Your task to perform on an android device: turn pop-ups on in chrome Image 0: 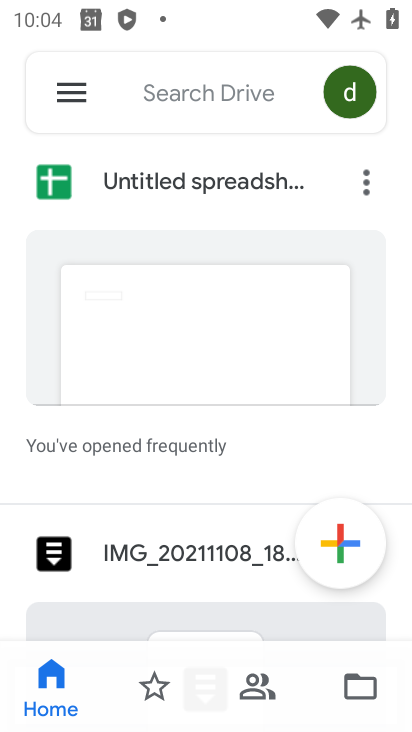
Step 0: press home button
Your task to perform on an android device: turn pop-ups on in chrome Image 1: 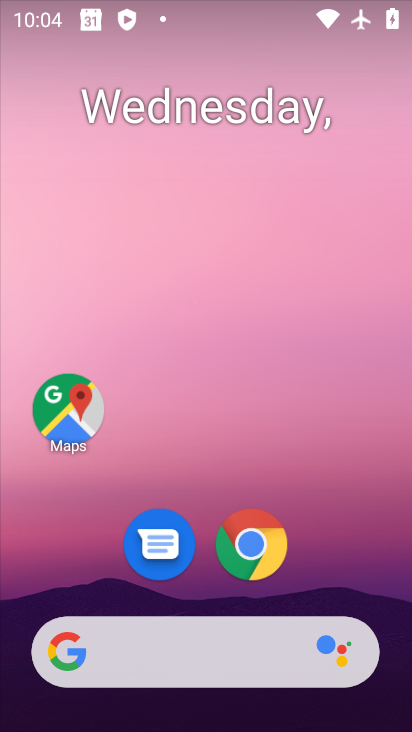
Step 1: click (257, 547)
Your task to perform on an android device: turn pop-ups on in chrome Image 2: 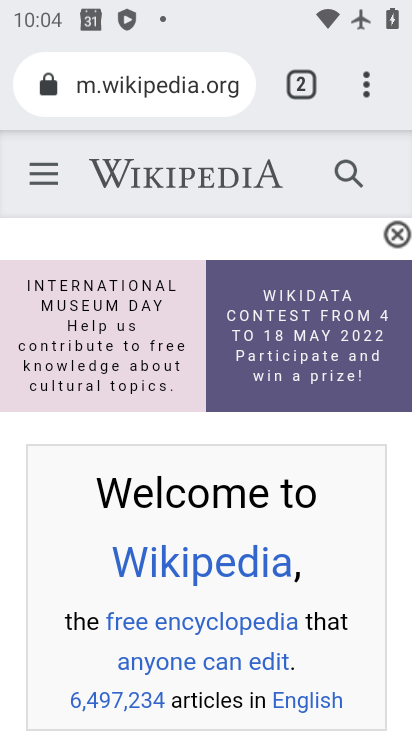
Step 2: click (367, 91)
Your task to perform on an android device: turn pop-ups on in chrome Image 3: 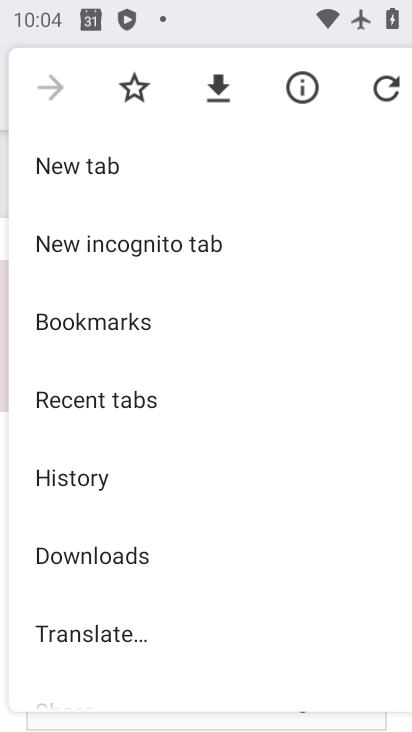
Step 3: drag from (208, 650) to (194, 152)
Your task to perform on an android device: turn pop-ups on in chrome Image 4: 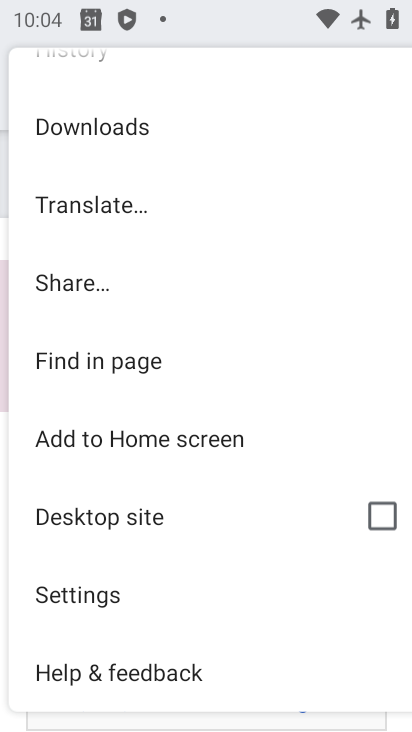
Step 4: click (92, 606)
Your task to perform on an android device: turn pop-ups on in chrome Image 5: 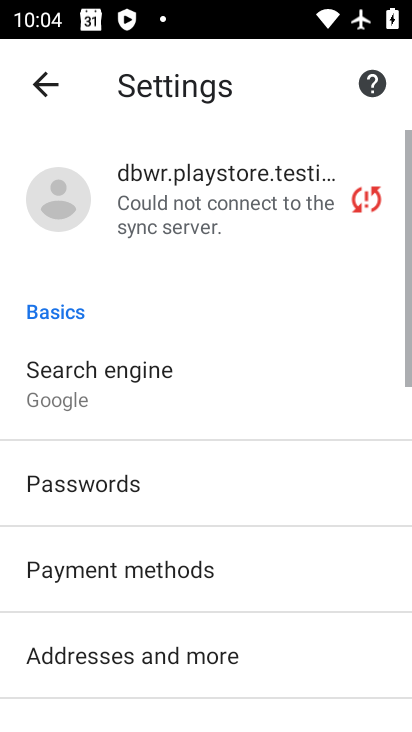
Step 5: drag from (154, 657) to (144, 300)
Your task to perform on an android device: turn pop-ups on in chrome Image 6: 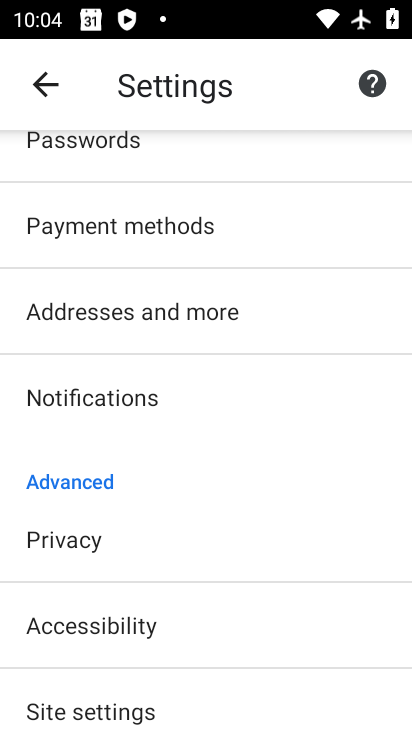
Step 6: drag from (173, 625) to (190, 282)
Your task to perform on an android device: turn pop-ups on in chrome Image 7: 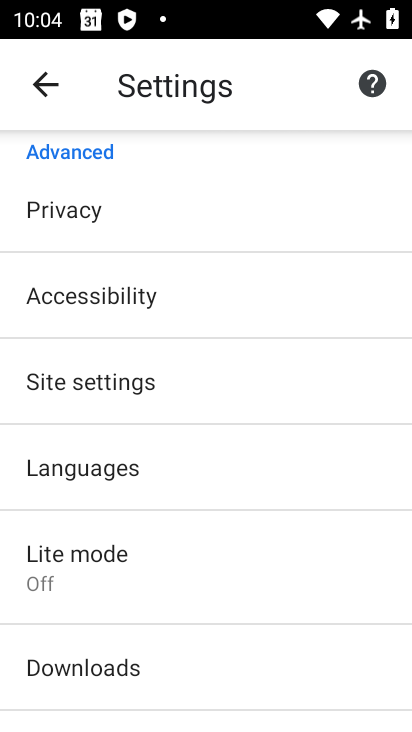
Step 7: click (137, 381)
Your task to perform on an android device: turn pop-ups on in chrome Image 8: 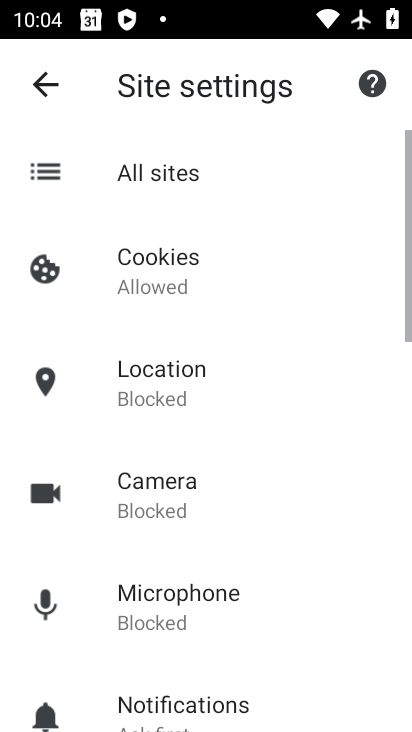
Step 8: drag from (269, 633) to (264, 311)
Your task to perform on an android device: turn pop-ups on in chrome Image 9: 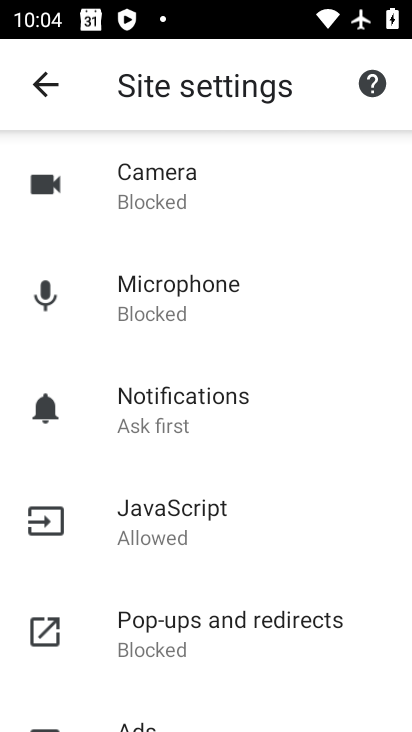
Step 9: click (270, 637)
Your task to perform on an android device: turn pop-ups on in chrome Image 10: 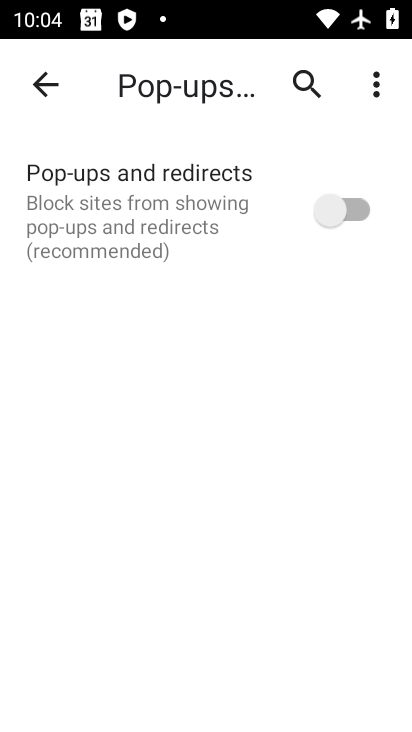
Step 10: click (309, 200)
Your task to perform on an android device: turn pop-ups on in chrome Image 11: 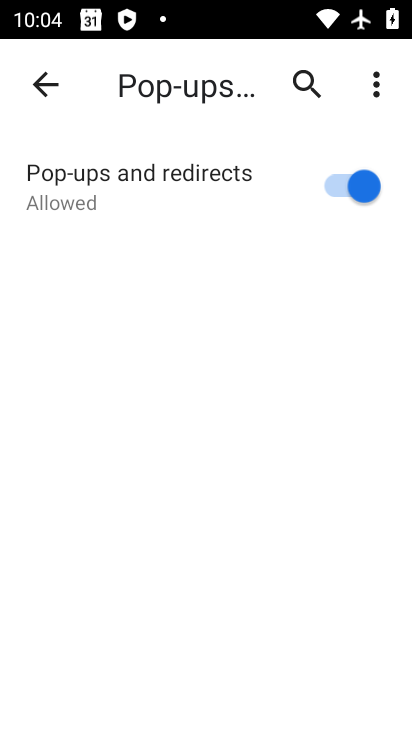
Step 11: task complete